Your task to perform on an android device: open sync settings in chrome Image 0: 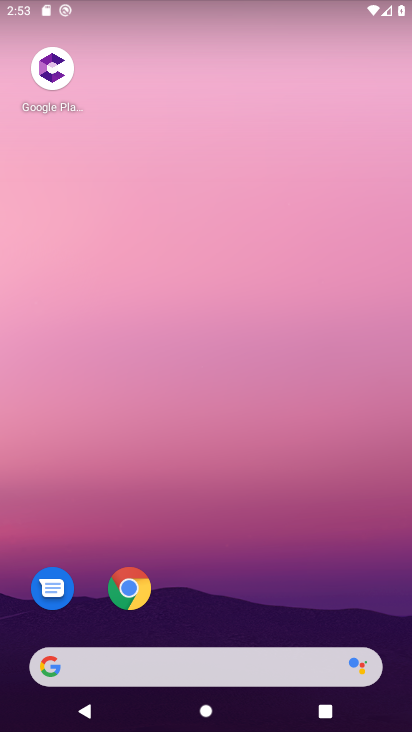
Step 0: click (124, 578)
Your task to perform on an android device: open sync settings in chrome Image 1: 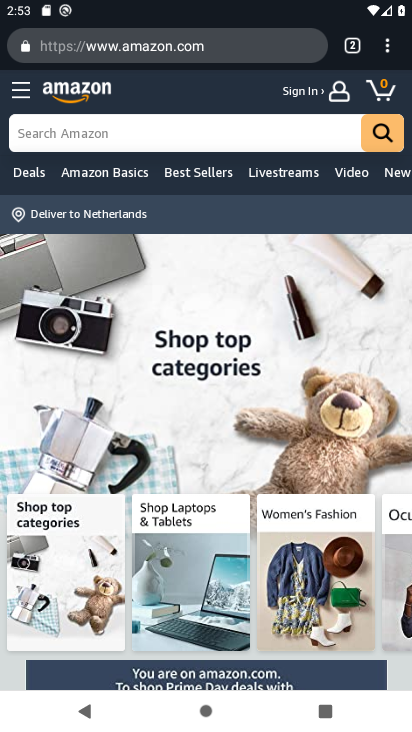
Step 1: click (388, 43)
Your task to perform on an android device: open sync settings in chrome Image 2: 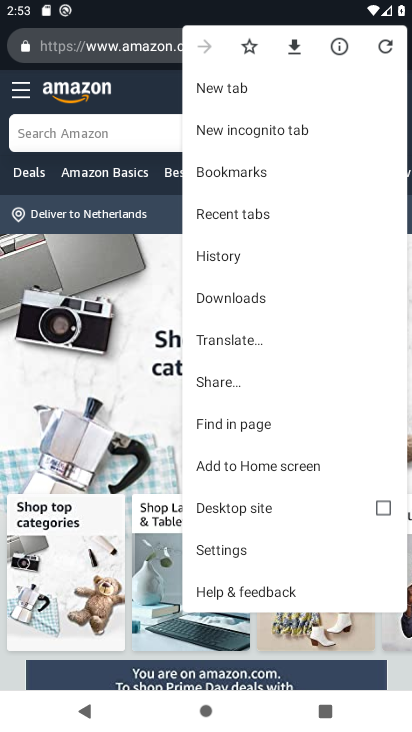
Step 2: click (212, 546)
Your task to perform on an android device: open sync settings in chrome Image 3: 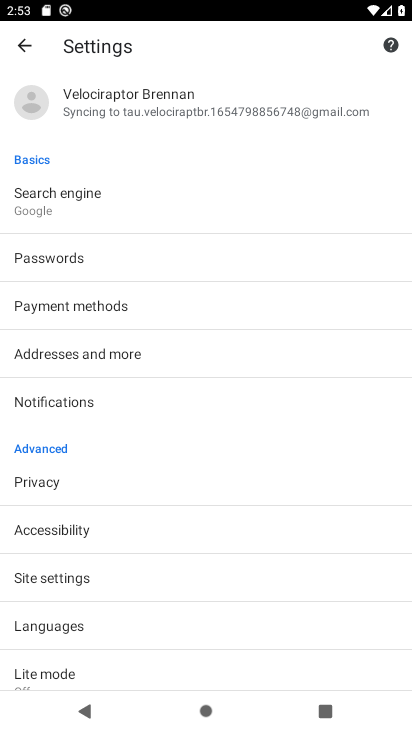
Step 3: drag from (135, 560) to (108, 64)
Your task to perform on an android device: open sync settings in chrome Image 4: 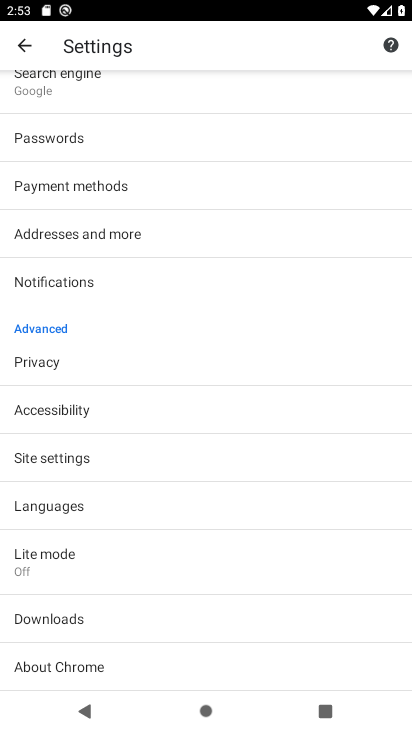
Step 4: drag from (91, 351) to (36, 724)
Your task to perform on an android device: open sync settings in chrome Image 5: 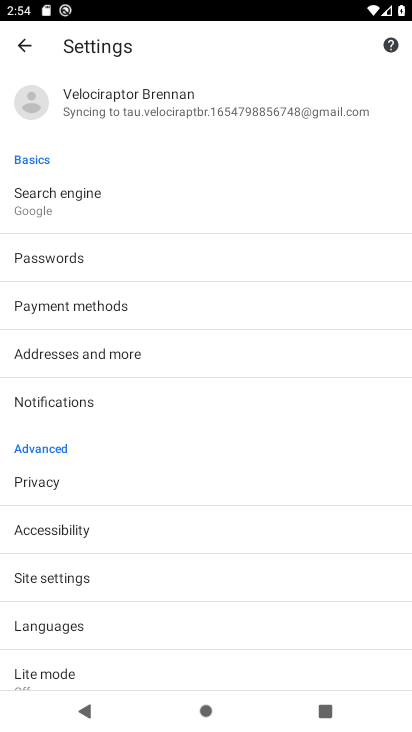
Step 5: drag from (70, 575) to (9, 181)
Your task to perform on an android device: open sync settings in chrome Image 6: 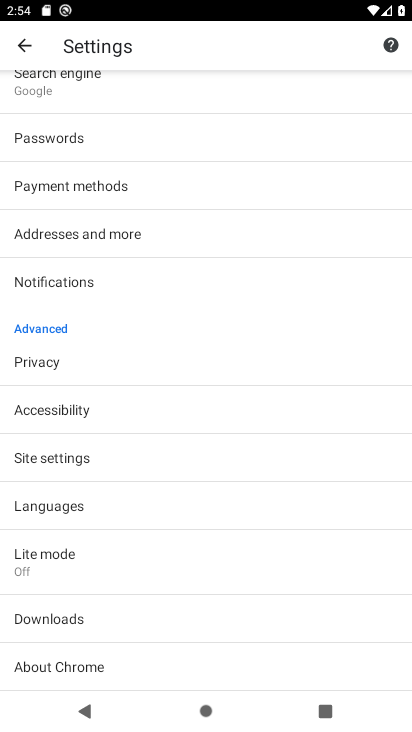
Step 6: drag from (110, 259) to (113, 602)
Your task to perform on an android device: open sync settings in chrome Image 7: 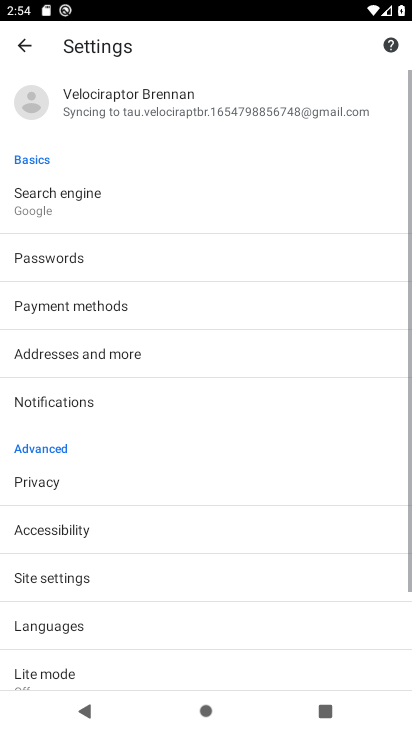
Step 7: click (120, 113)
Your task to perform on an android device: open sync settings in chrome Image 8: 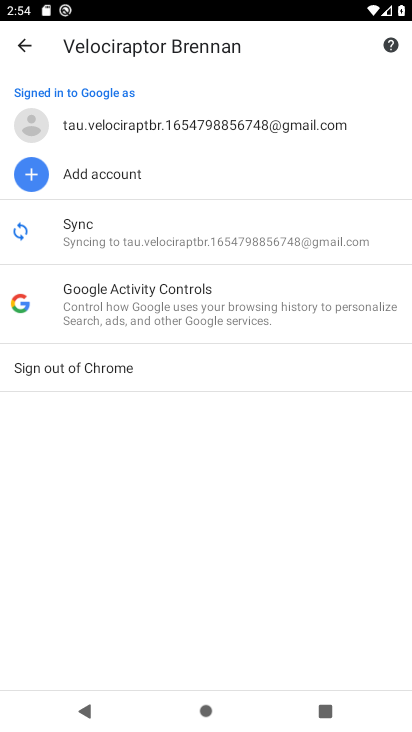
Step 8: click (265, 219)
Your task to perform on an android device: open sync settings in chrome Image 9: 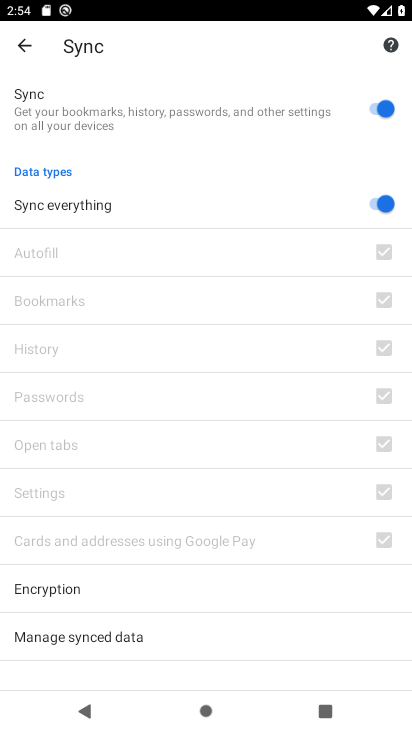
Step 9: task complete